Your task to perform on an android device: change your default location settings in chrome Image 0: 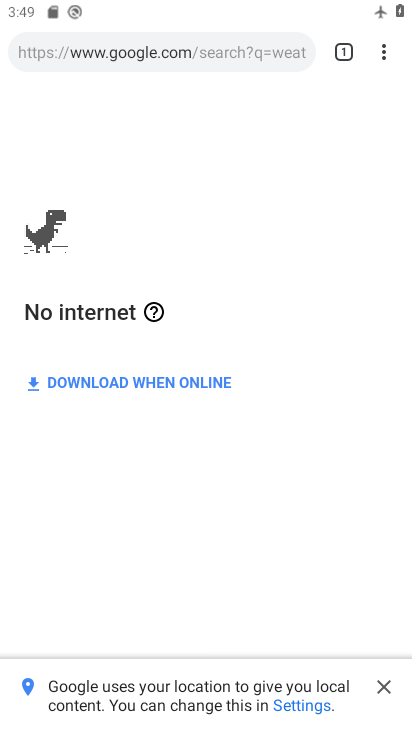
Step 0: drag from (271, 526) to (305, 180)
Your task to perform on an android device: change your default location settings in chrome Image 1: 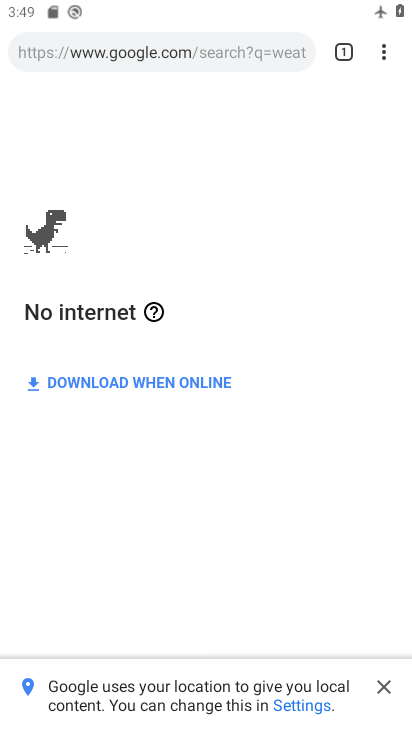
Step 1: press home button
Your task to perform on an android device: change your default location settings in chrome Image 2: 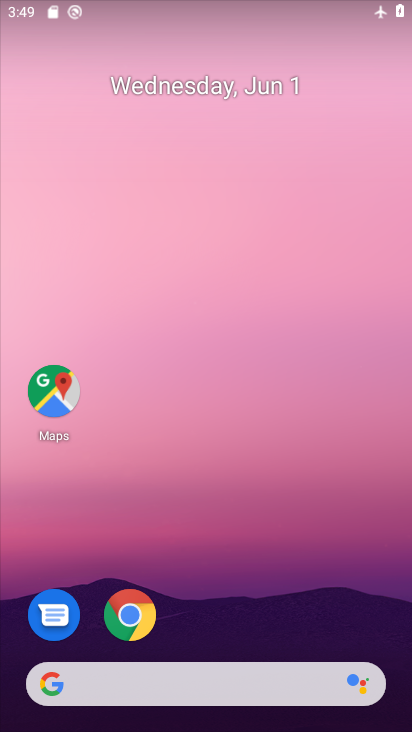
Step 2: drag from (269, 581) to (256, 146)
Your task to perform on an android device: change your default location settings in chrome Image 3: 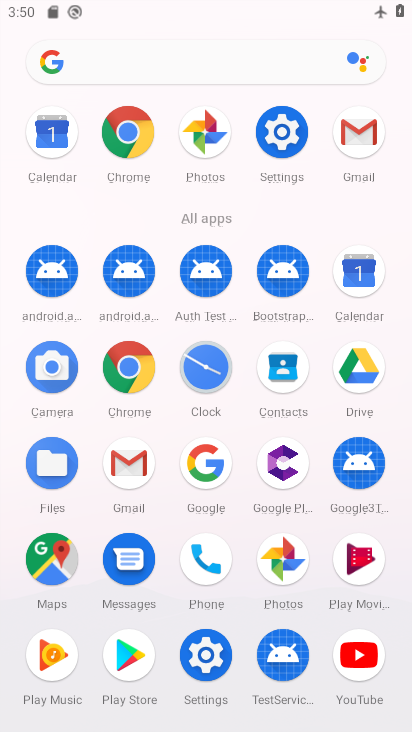
Step 3: click (131, 365)
Your task to perform on an android device: change your default location settings in chrome Image 4: 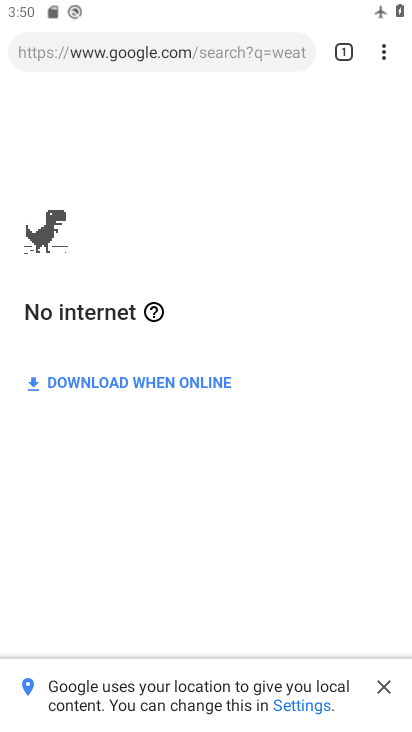
Step 4: click (388, 53)
Your task to perform on an android device: change your default location settings in chrome Image 5: 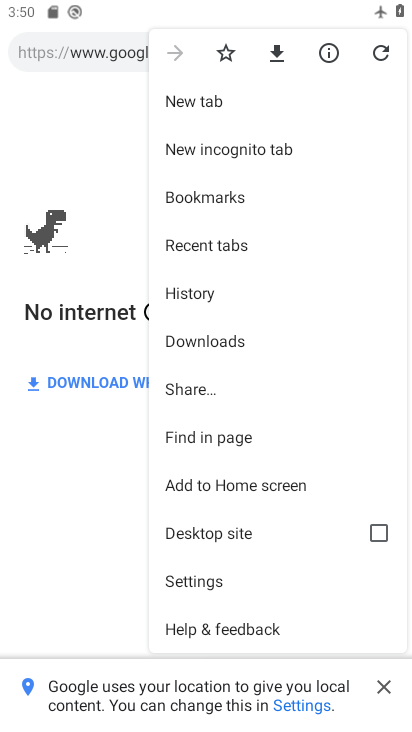
Step 5: click (225, 576)
Your task to perform on an android device: change your default location settings in chrome Image 6: 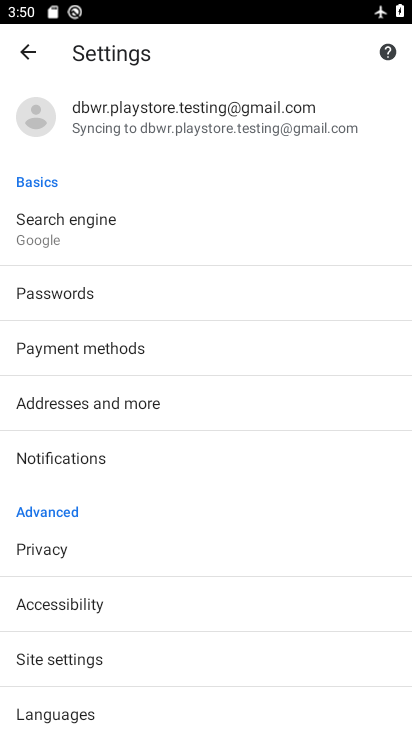
Step 6: click (99, 667)
Your task to perform on an android device: change your default location settings in chrome Image 7: 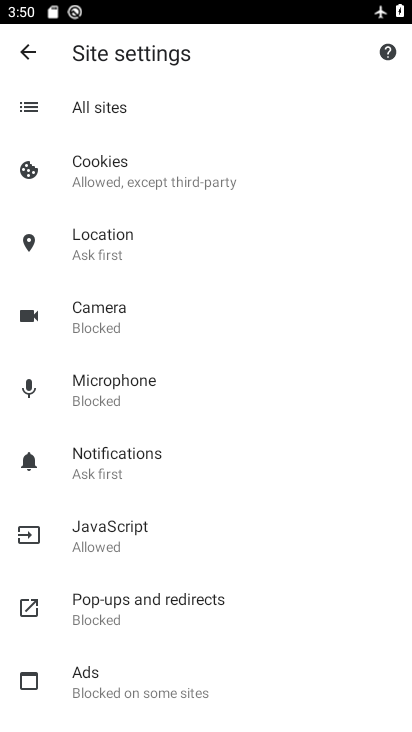
Step 7: drag from (227, 553) to (255, 266)
Your task to perform on an android device: change your default location settings in chrome Image 8: 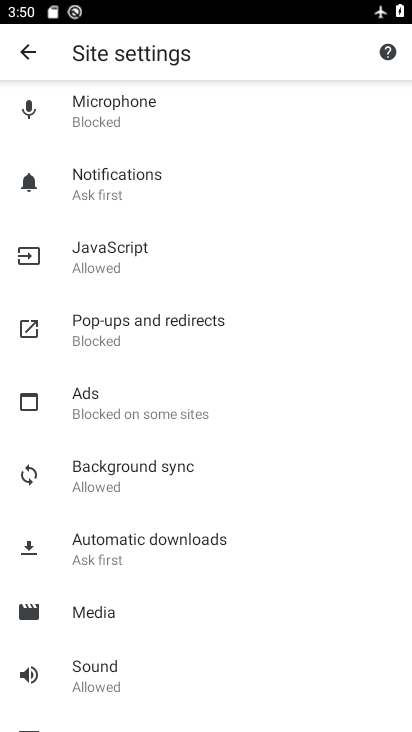
Step 8: drag from (212, 557) to (347, 179)
Your task to perform on an android device: change your default location settings in chrome Image 9: 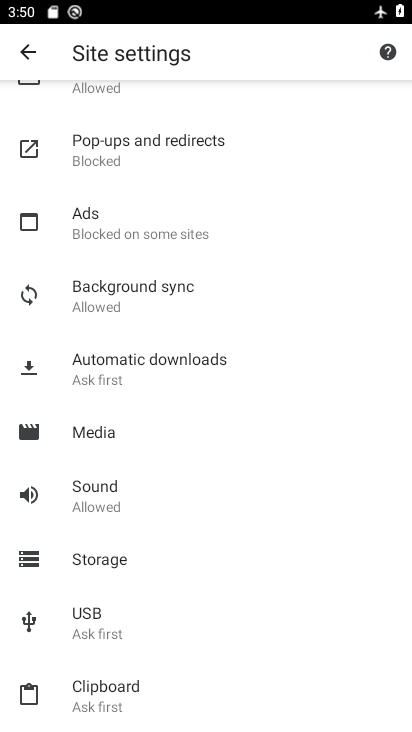
Step 9: drag from (205, 496) to (310, 186)
Your task to perform on an android device: change your default location settings in chrome Image 10: 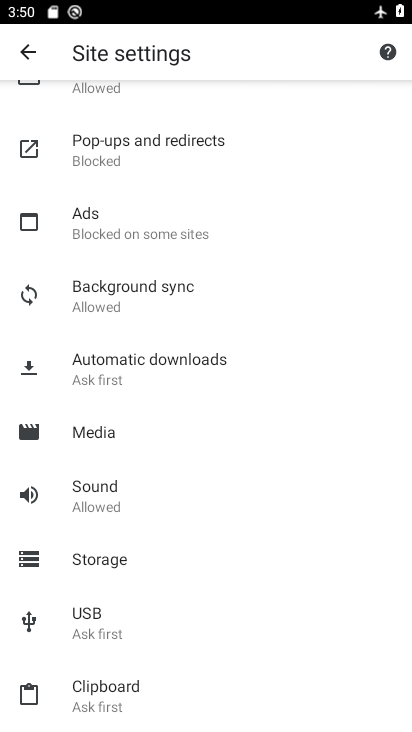
Step 10: drag from (236, 195) to (204, 561)
Your task to perform on an android device: change your default location settings in chrome Image 11: 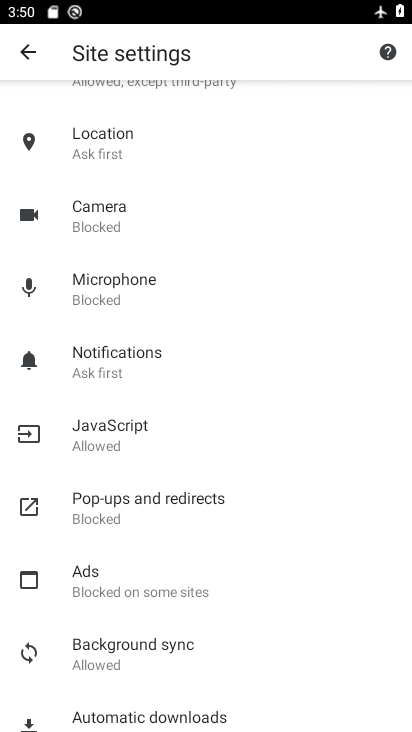
Step 11: drag from (228, 364) to (225, 614)
Your task to perform on an android device: change your default location settings in chrome Image 12: 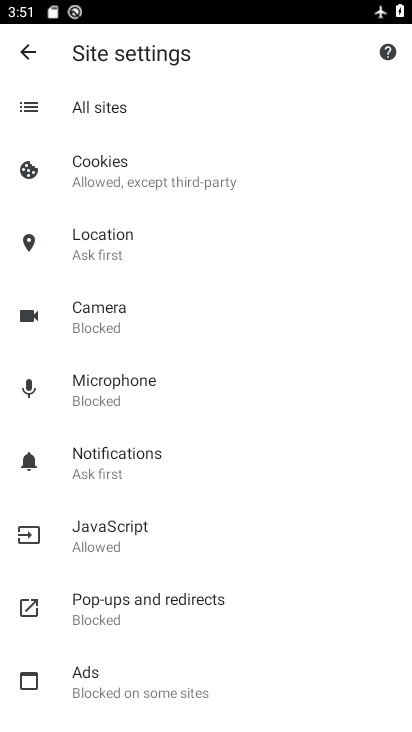
Step 12: click (122, 240)
Your task to perform on an android device: change your default location settings in chrome Image 13: 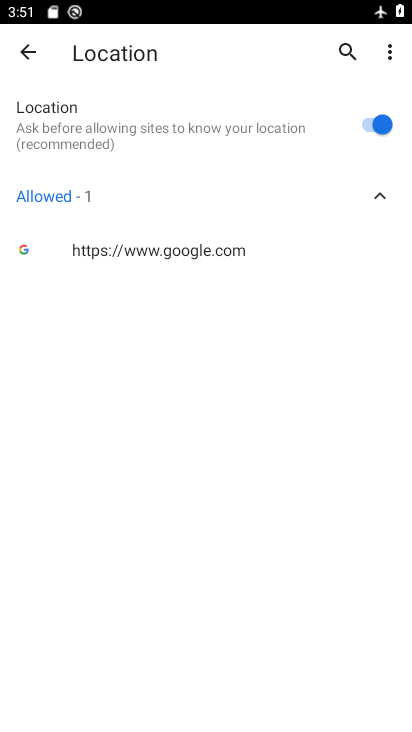
Step 13: click (386, 119)
Your task to perform on an android device: change your default location settings in chrome Image 14: 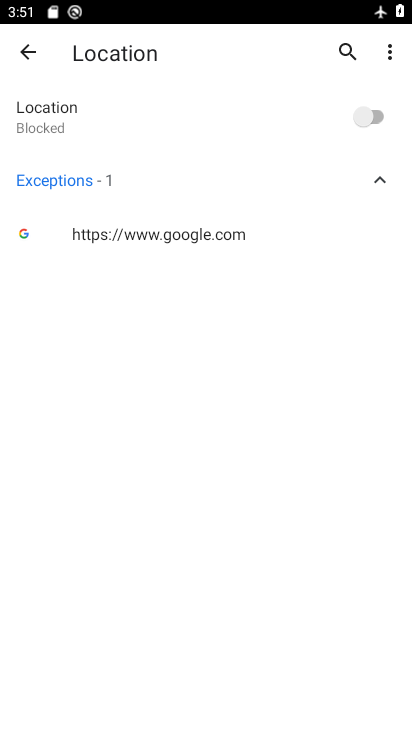
Step 14: task complete